Your task to perform on an android device: Clear the cart on newegg.com. Image 0: 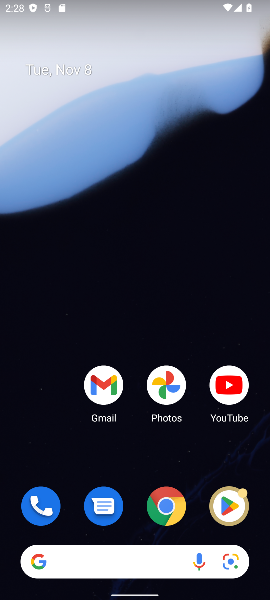
Step 0: drag from (167, 544) to (170, 113)
Your task to perform on an android device: Clear the cart on newegg.com. Image 1: 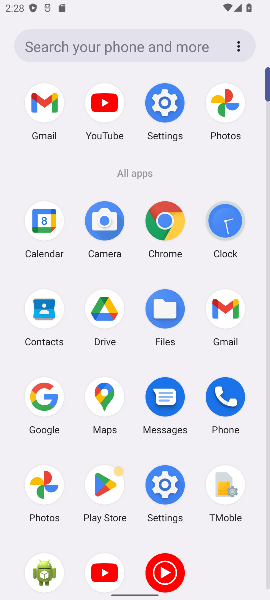
Step 1: click (163, 248)
Your task to perform on an android device: Clear the cart on newegg.com. Image 2: 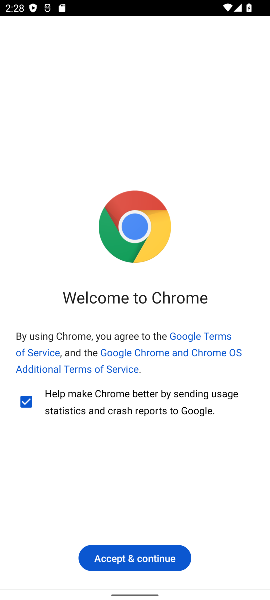
Step 2: click (159, 550)
Your task to perform on an android device: Clear the cart on newegg.com. Image 3: 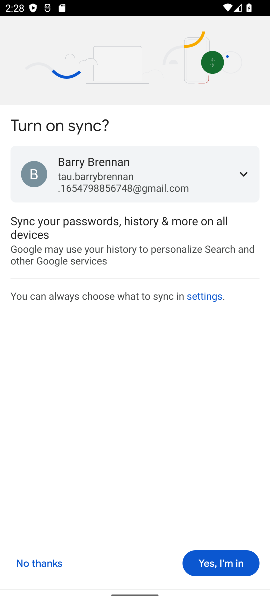
Step 3: click (227, 564)
Your task to perform on an android device: Clear the cart on newegg.com. Image 4: 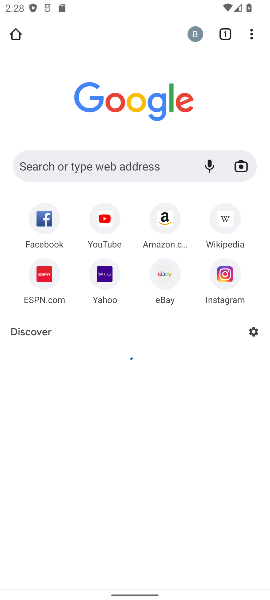
Step 4: click (151, 175)
Your task to perform on an android device: Clear the cart on newegg.com. Image 5: 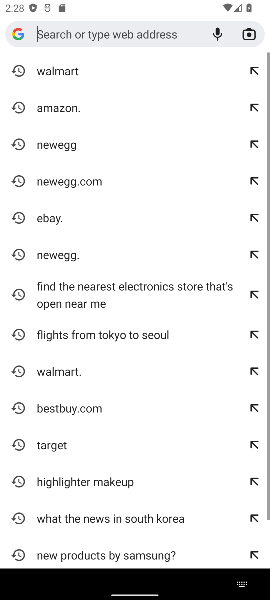
Step 5: type "newegg.com"
Your task to perform on an android device: Clear the cart on newegg.com. Image 6: 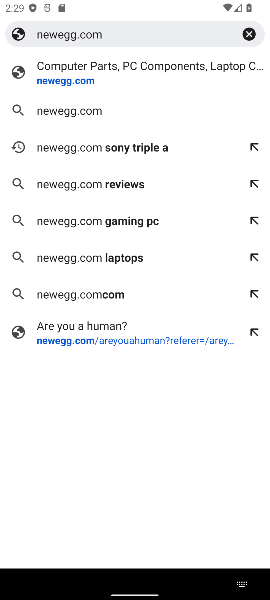
Step 6: click (51, 80)
Your task to perform on an android device: Clear the cart on newegg.com. Image 7: 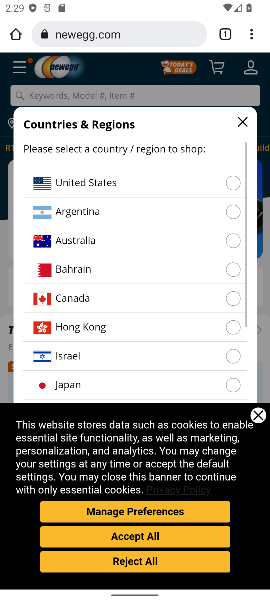
Step 7: click (244, 101)
Your task to perform on an android device: Clear the cart on newegg.com. Image 8: 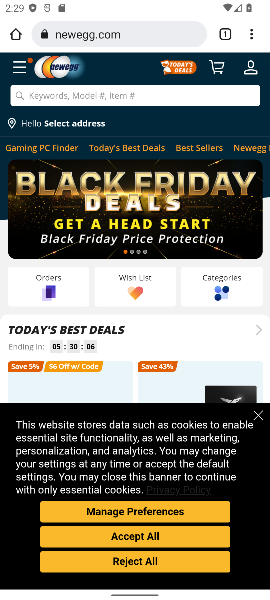
Step 8: click (219, 68)
Your task to perform on an android device: Clear the cart on newegg.com. Image 9: 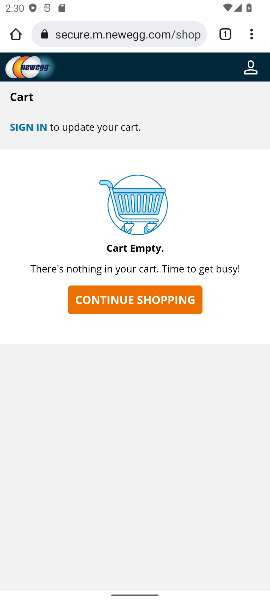
Step 9: task complete